Your task to perform on an android device: see tabs open on other devices in the chrome app Image 0: 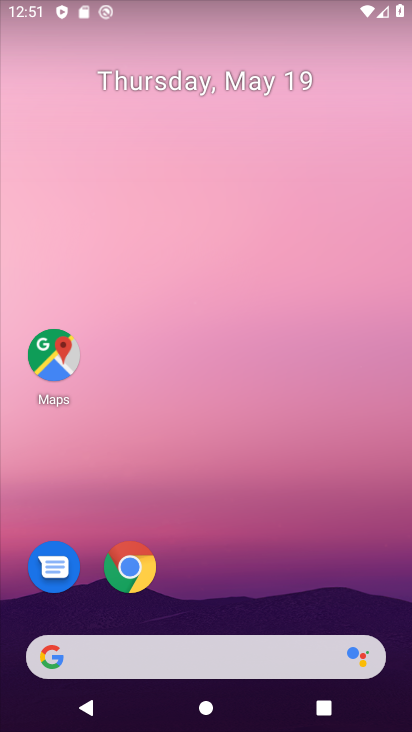
Step 0: drag from (135, 653) to (239, 186)
Your task to perform on an android device: see tabs open on other devices in the chrome app Image 1: 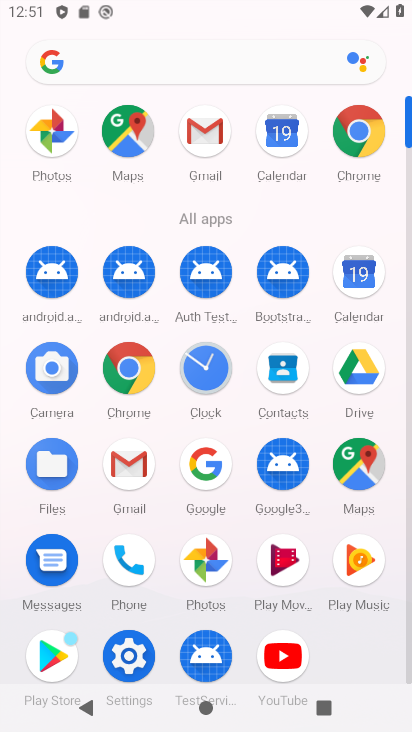
Step 1: click (359, 141)
Your task to perform on an android device: see tabs open on other devices in the chrome app Image 2: 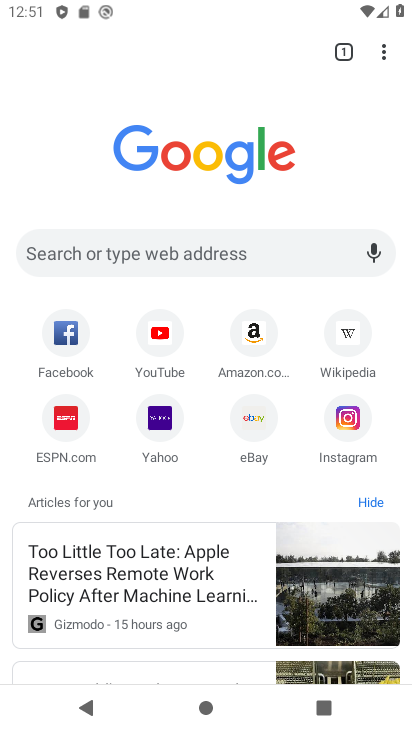
Step 2: task complete